Your task to perform on an android device: add a contact in the contacts app Image 0: 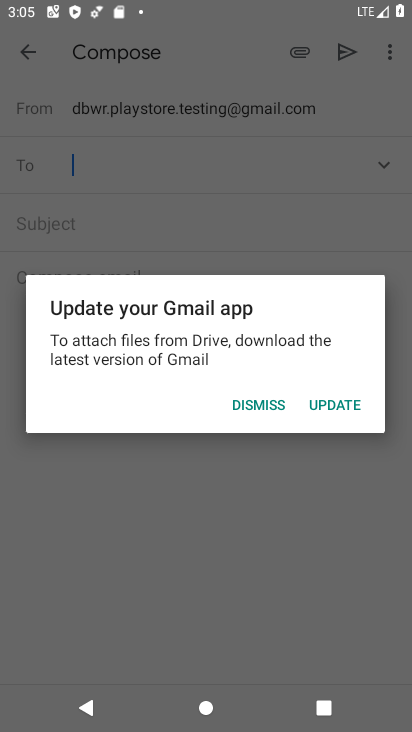
Step 0: press home button
Your task to perform on an android device: add a contact in the contacts app Image 1: 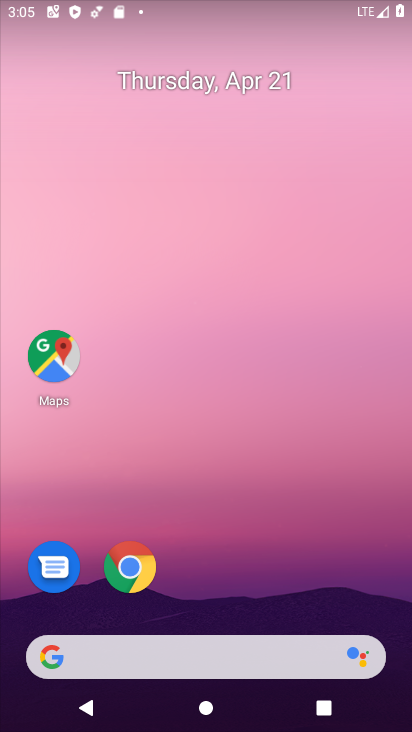
Step 1: drag from (302, 608) to (231, 25)
Your task to perform on an android device: add a contact in the contacts app Image 2: 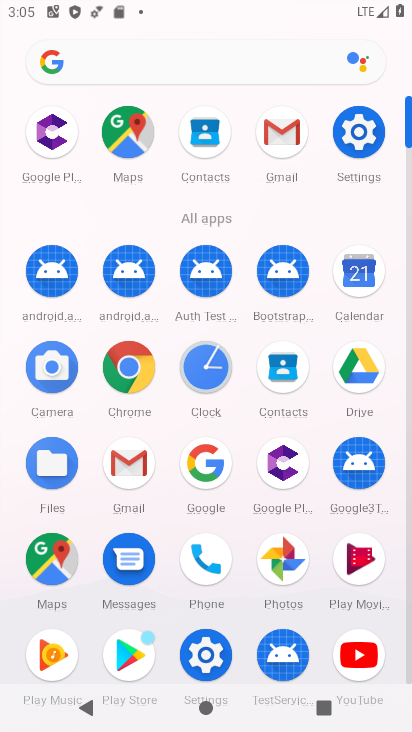
Step 2: click (273, 364)
Your task to perform on an android device: add a contact in the contacts app Image 3: 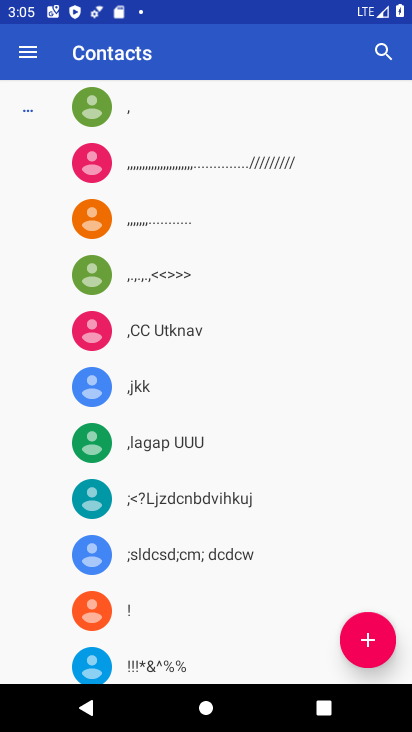
Step 3: type ",,"
Your task to perform on an android device: add a contact in the contacts app Image 4: 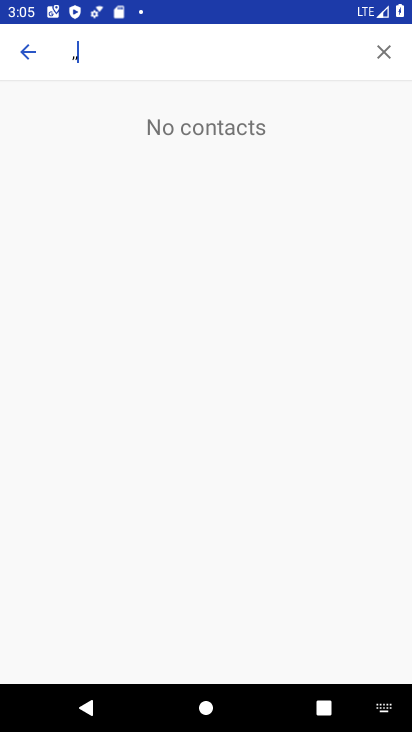
Step 4: click (38, 53)
Your task to perform on an android device: add a contact in the contacts app Image 5: 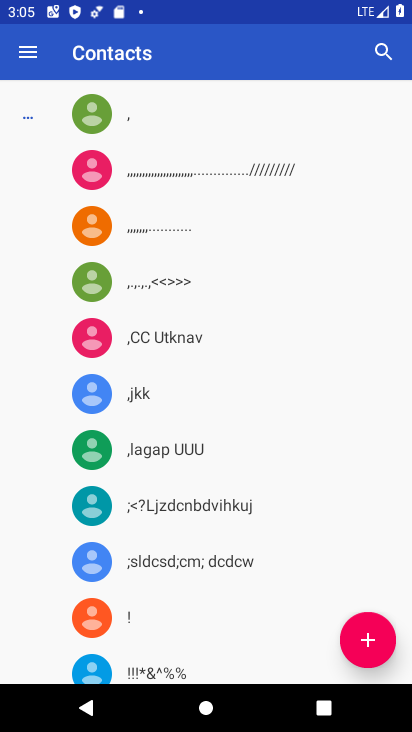
Step 5: click (383, 640)
Your task to perform on an android device: add a contact in the contacts app Image 6: 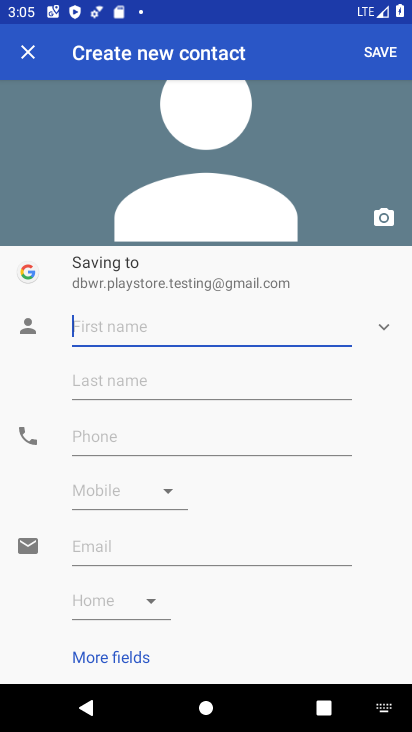
Step 6: type "''"
Your task to perform on an android device: add a contact in the contacts app Image 7: 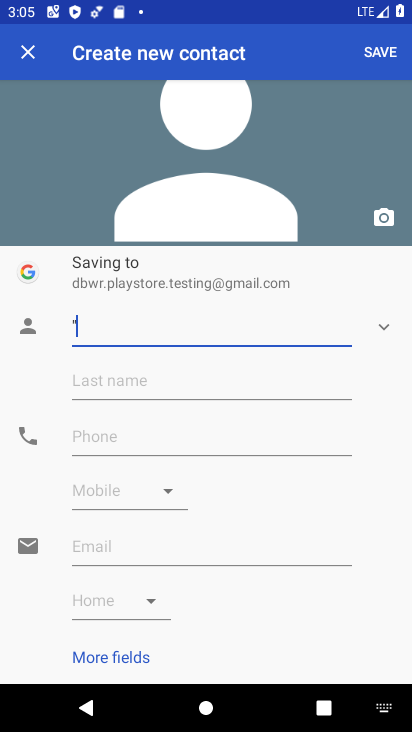
Step 7: type ""
Your task to perform on an android device: add a contact in the contacts app Image 8: 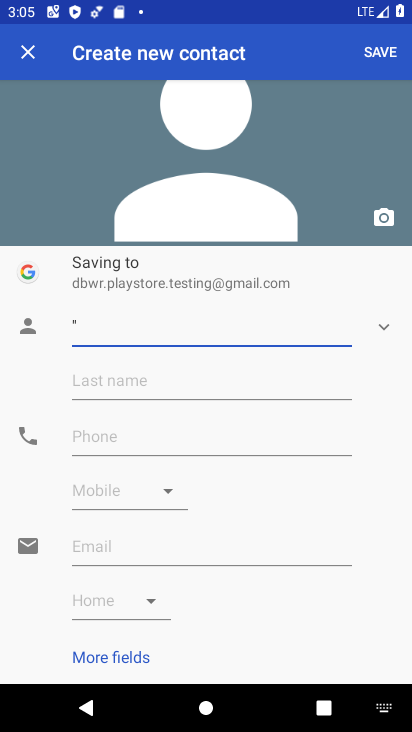
Step 8: click (250, 439)
Your task to perform on an android device: add a contact in the contacts app Image 9: 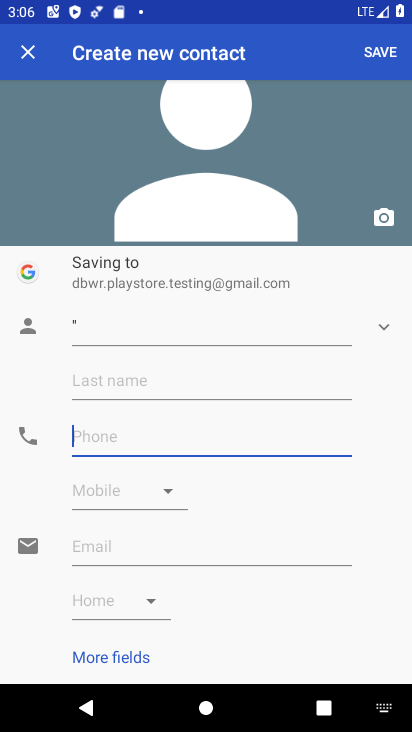
Step 9: type "09876545678"
Your task to perform on an android device: add a contact in the contacts app Image 10: 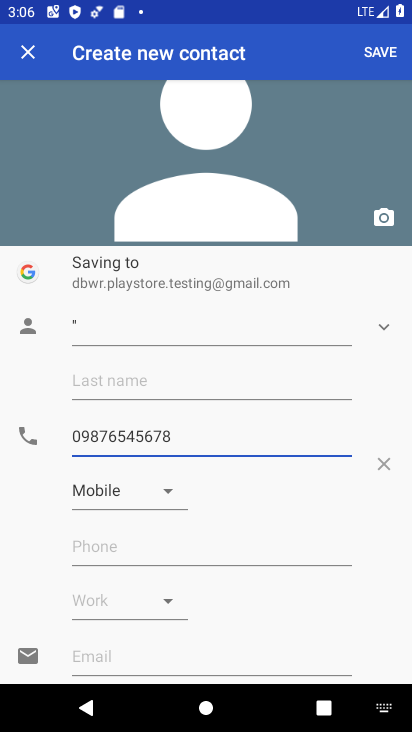
Step 10: click (370, 72)
Your task to perform on an android device: add a contact in the contacts app Image 11: 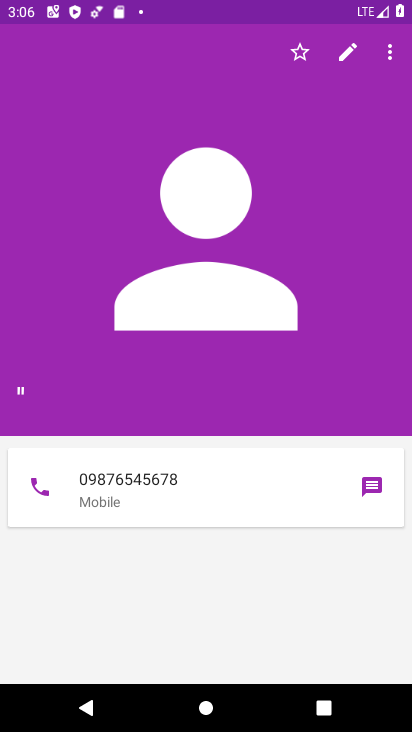
Step 11: task complete